Your task to perform on an android device: turn off javascript in the chrome app Image 0: 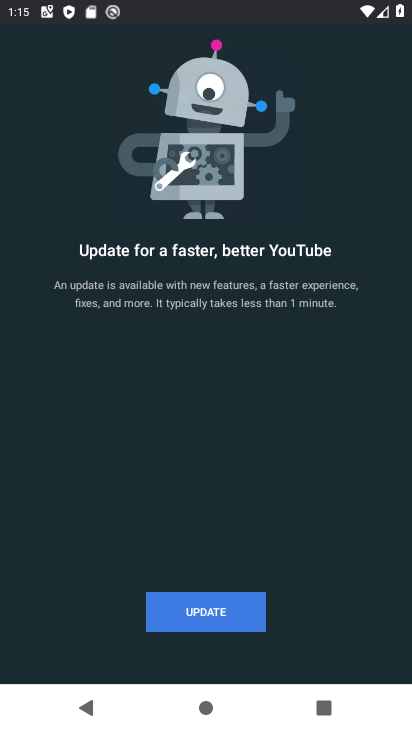
Step 0: press home button
Your task to perform on an android device: turn off javascript in the chrome app Image 1: 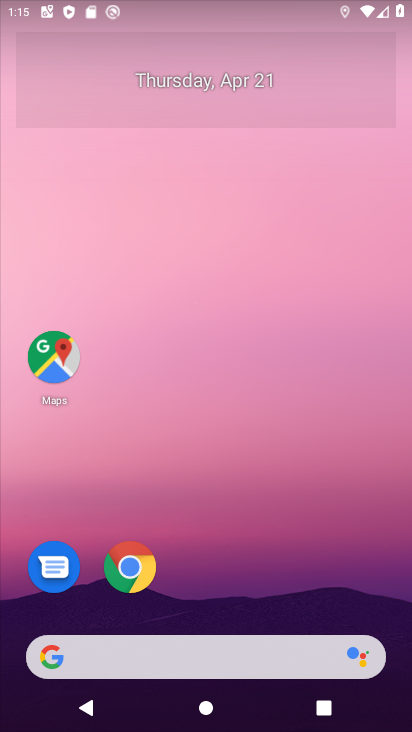
Step 1: click (123, 567)
Your task to perform on an android device: turn off javascript in the chrome app Image 2: 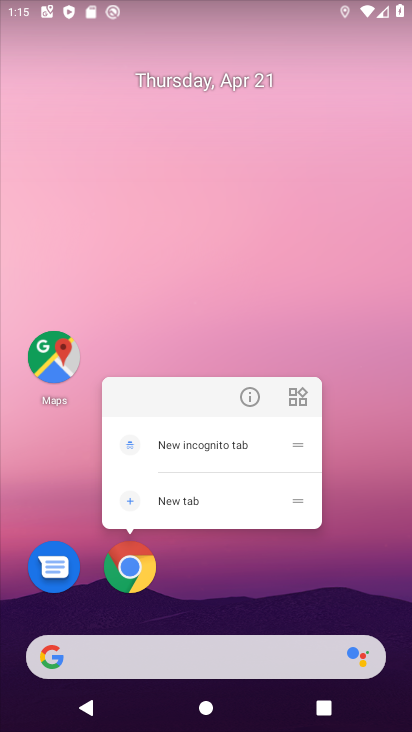
Step 2: click (126, 560)
Your task to perform on an android device: turn off javascript in the chrome app Image 3: 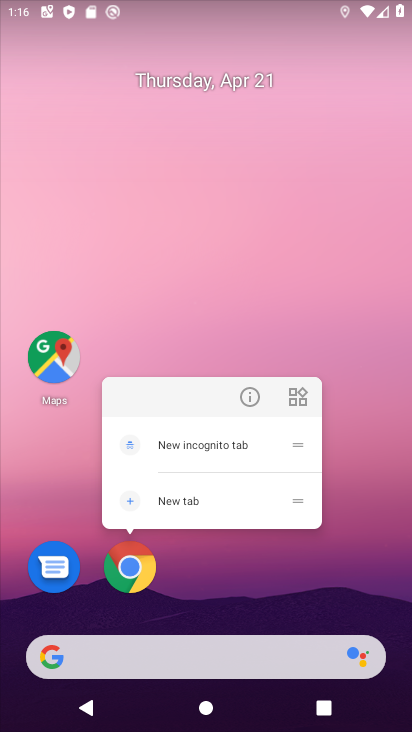
Step 3: click (132, 571)
Your task to perform on an android device: turn off javascript in the chrome app Image 4: 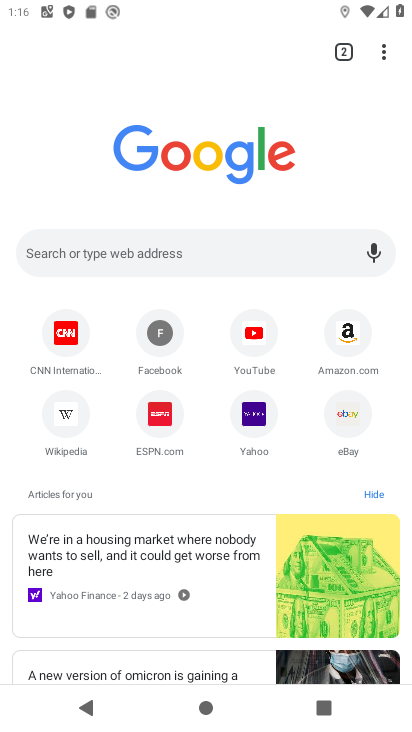
Step 4: drag from (383, 47) to (222, 440)
Your task to perform on an android device: turn off javascript in the chrome app Image 5: 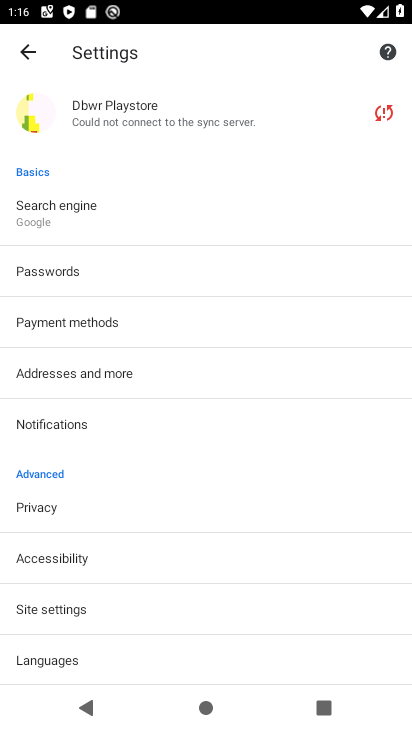
Step 5: click (80, 611)
Your task to perform on an android device: turn off javascript in the chrome app Image 6: 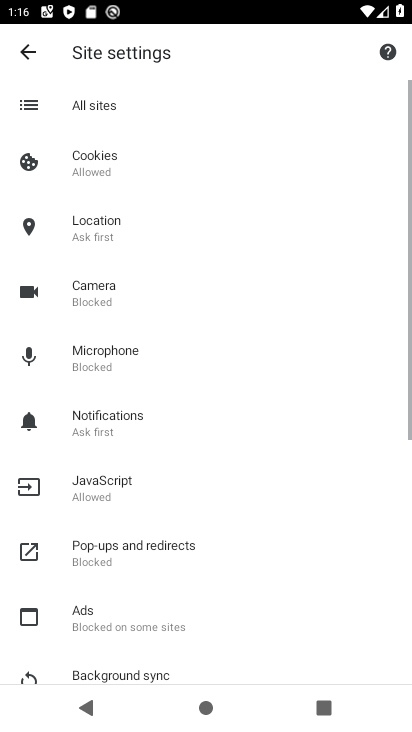
Step 6: click (116, 479)
Your task to perform on an android device: turn off javascript in the chrome app Image 7: 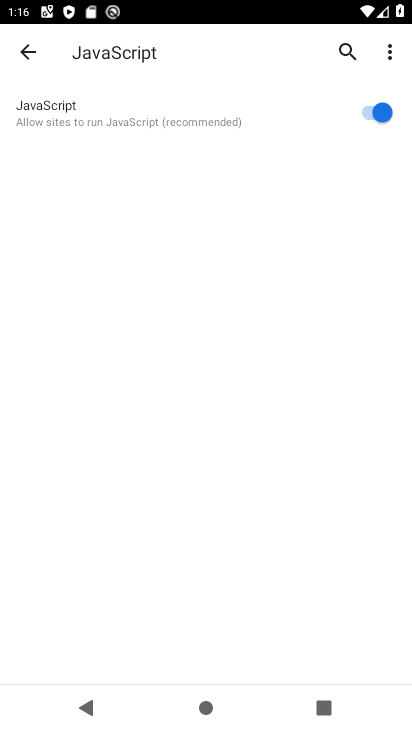
Step 7: click (364, 116)
Your task to perform on an android device: turn off javascript in the chrome app Image 8: 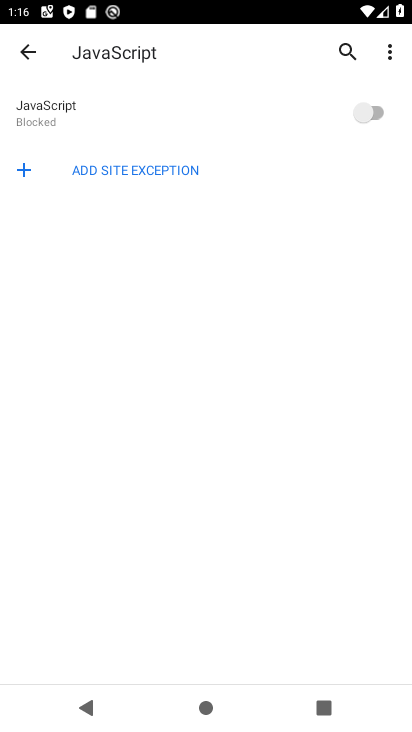
Step 8: task complete